Your task to perform on an android device: Go to privacy settings Image 0: 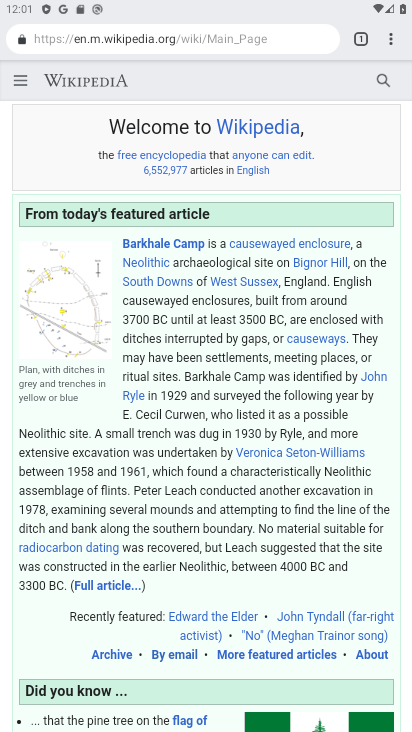
Step 0: press home button
Your task to perform on an android device: Go to privacy settings Image 1: 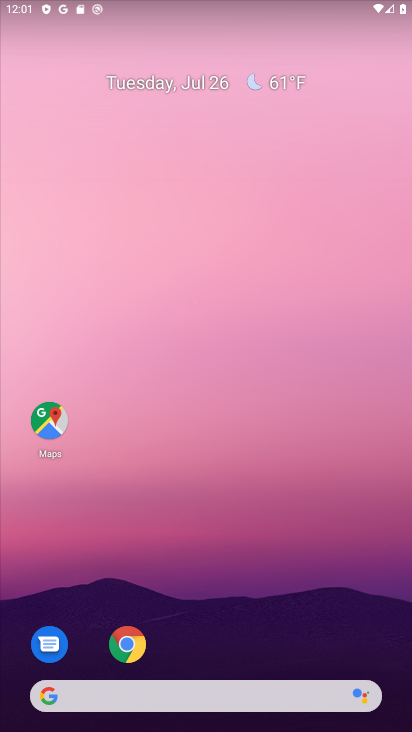
Step 1: drag from (284, 621) to (287, 96)
Your task to perform on an android device: Go to privacy settings Image 2: 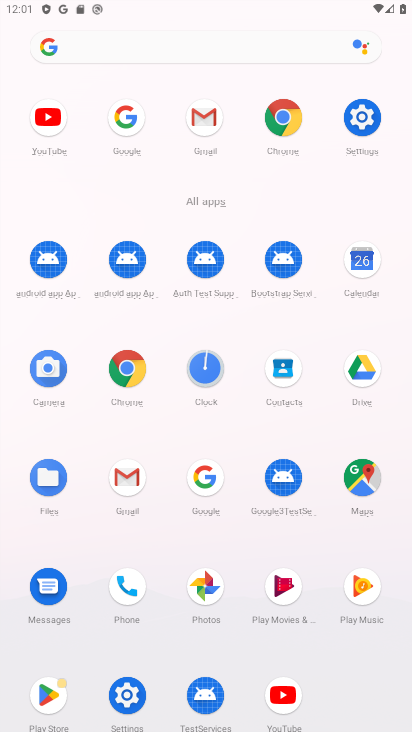
Step 2: click (361, 115)
Your task to perform on an android device: Go to privacy settings Image 3: 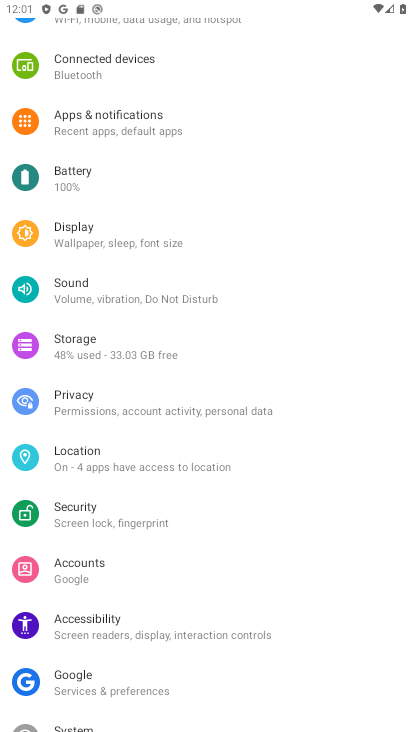
Step 3: click (98, 409)
Your task to perform on an android device: Go to privacy settings Image 4: 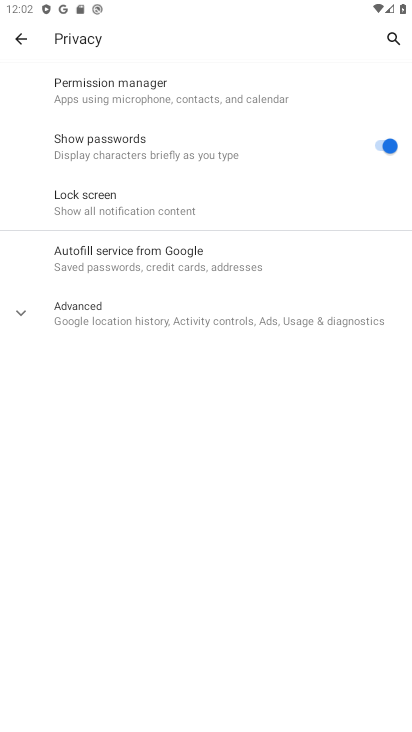
Step 4: task complete